Your task to perform on an android device: turn notification dots on Image 0: 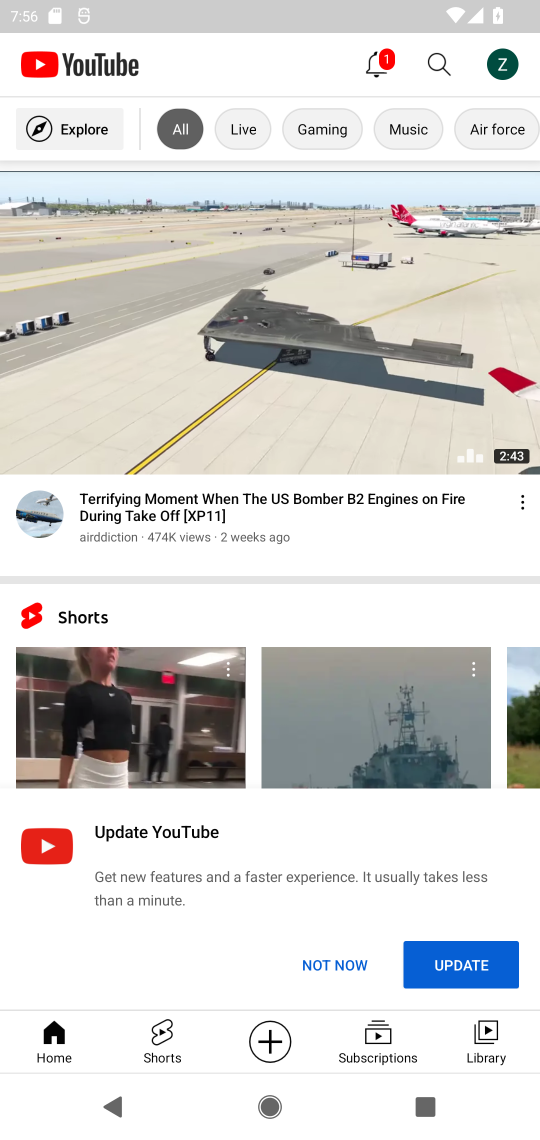
Step 0: press home button
Your task to perform on an android device: turn notification dots on Image 1: 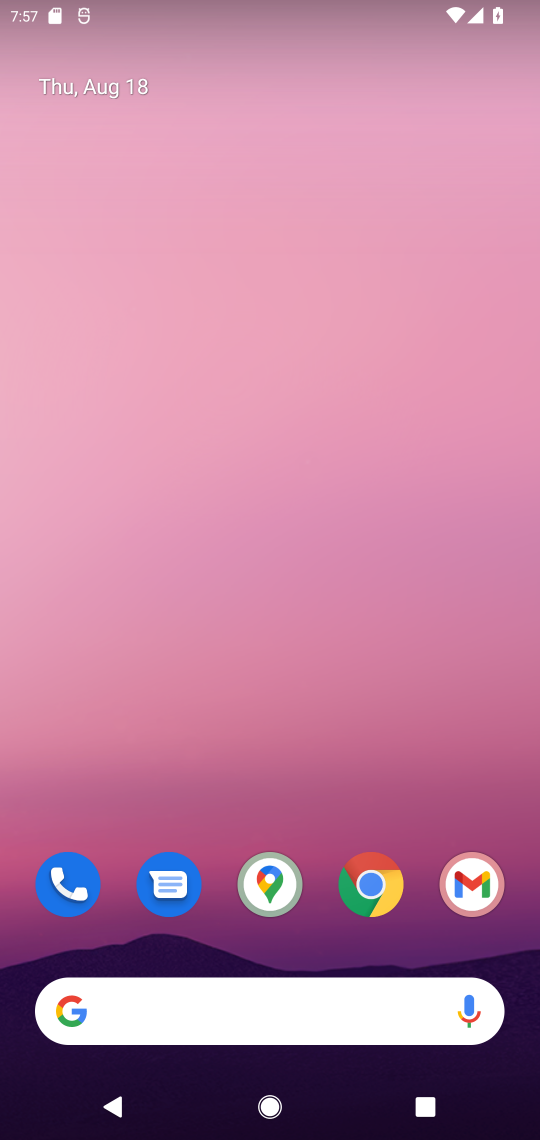
Step 1: drag from (318, 908) to (292, 386)
Your task to perform on an android device: turn notification dots on Image 2: 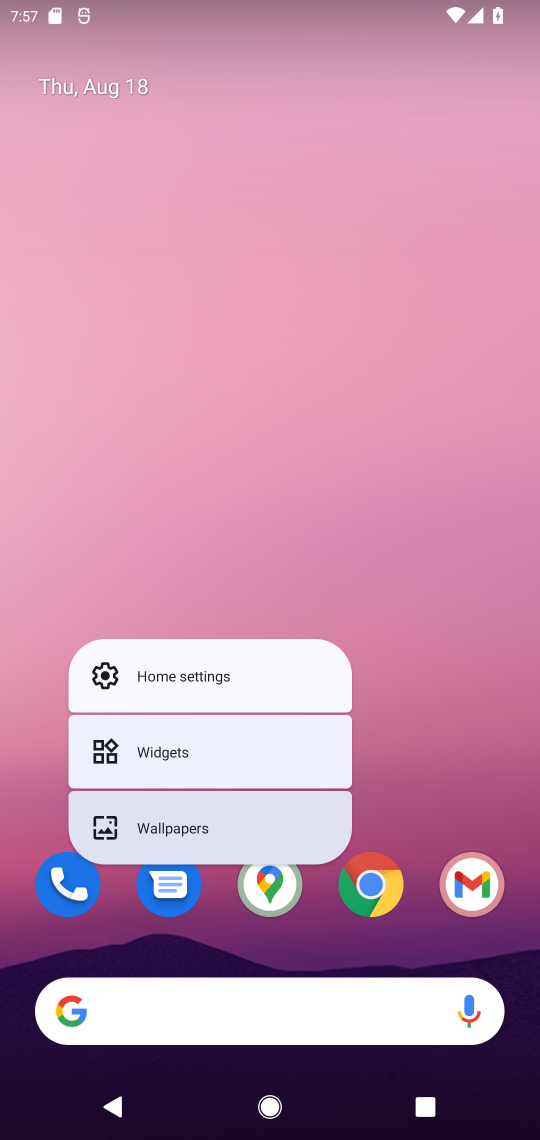
Step 2: drag from (225, 1037) to (277, 634)
Your task to perform on an android device: turn notification dots on Image 3: 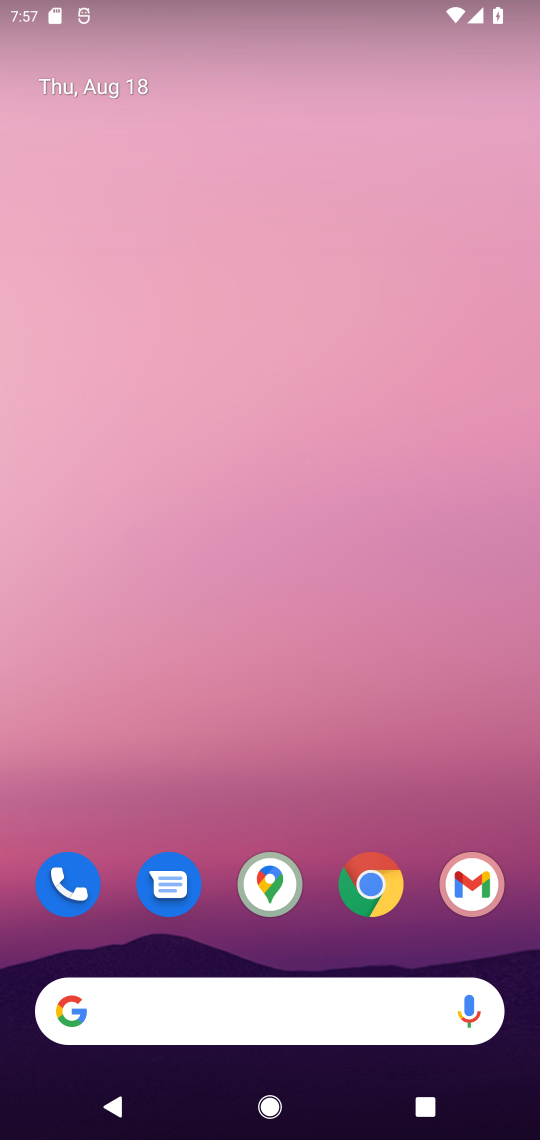
Step 3: drag from (207, 1115) to (356, 10)
Your task to perform on an android device: turn notification dots on Image 4: 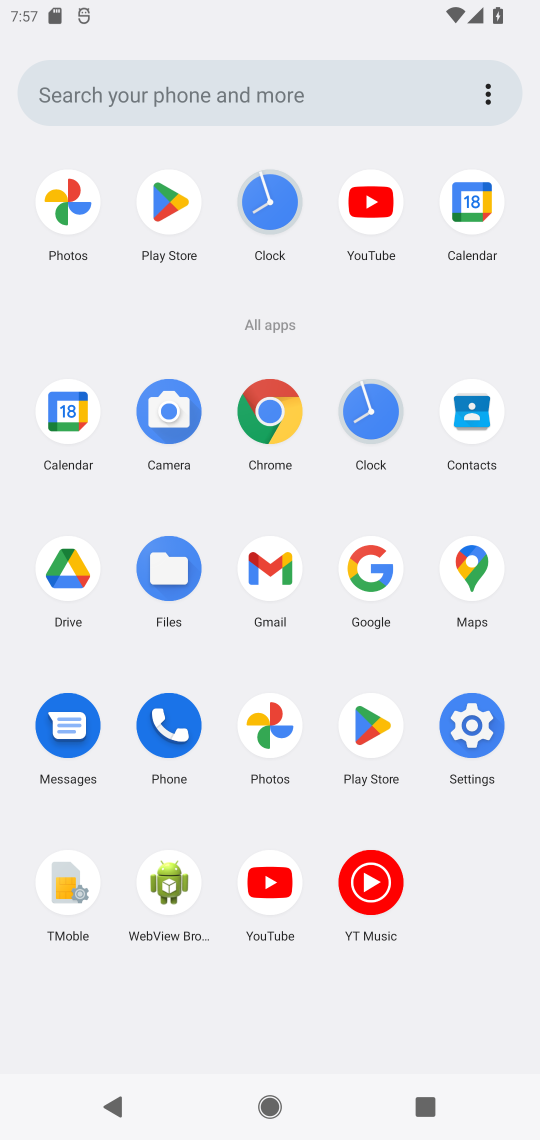
Step 4: click (471, 714)
Your task to perform on an android device: turn notification dots on Image 5: 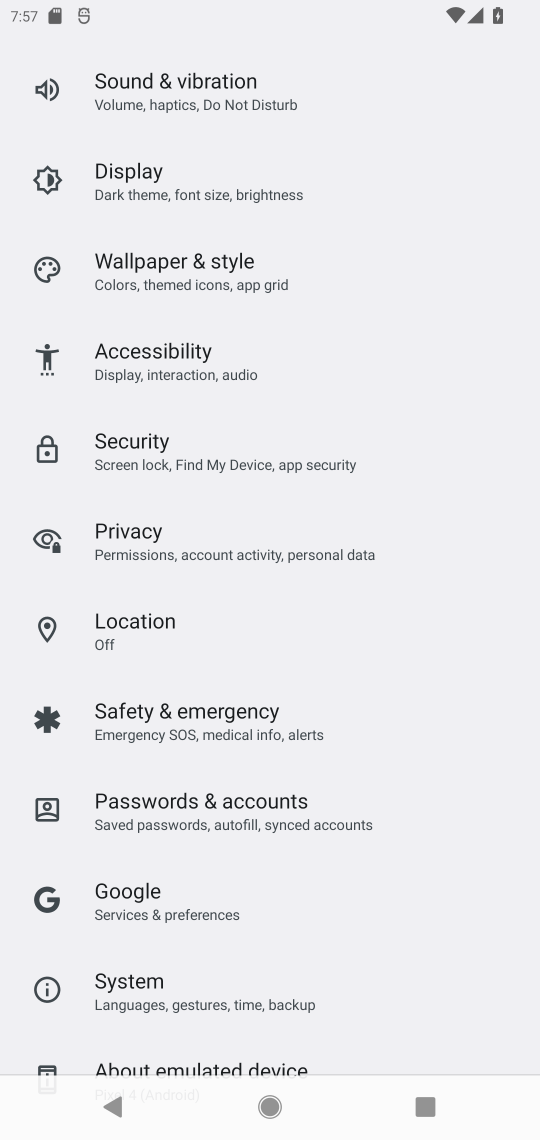
Step 5: drag from (236, 140) to (205, 898)
Your task to perform on an android device: turn notification dots on Image 6: 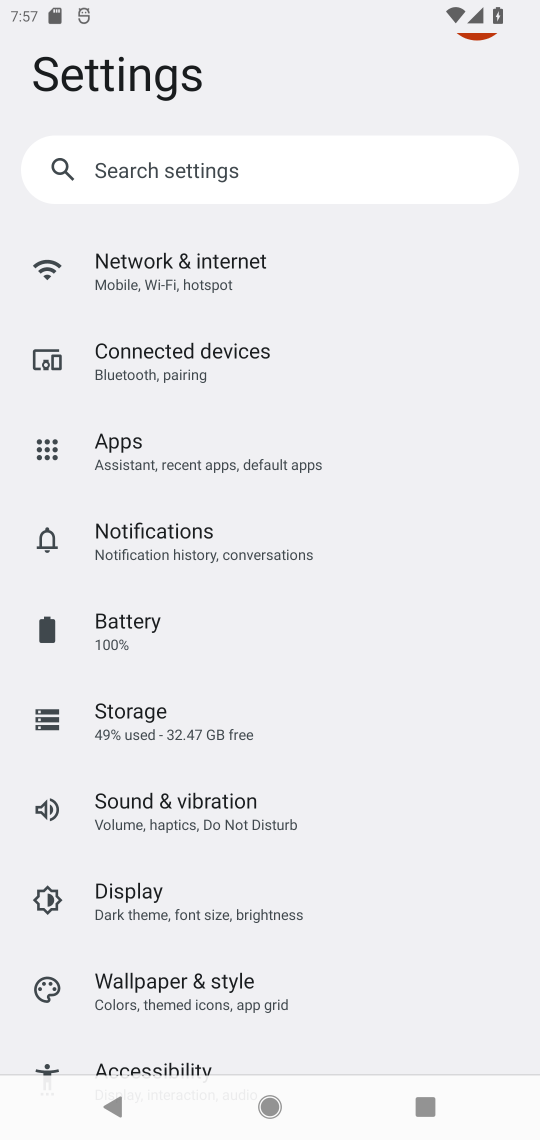
Step 6: click (137, 560)
Your task to perform on an android device: turn notification dots on Image 7: 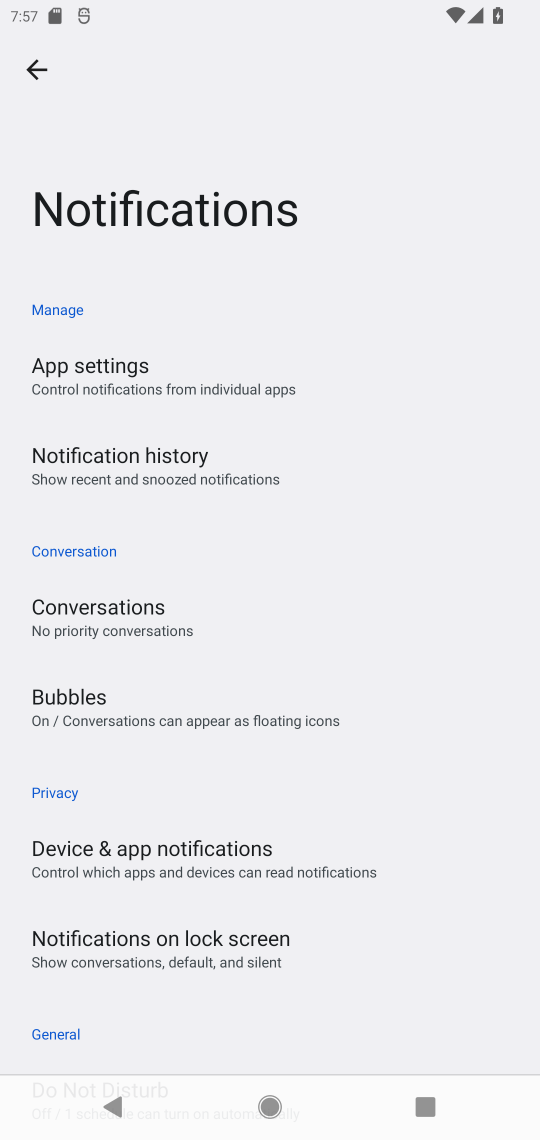
Step 7: task complete